Your task to perform on an android device: Go to CNN.com Image 0: 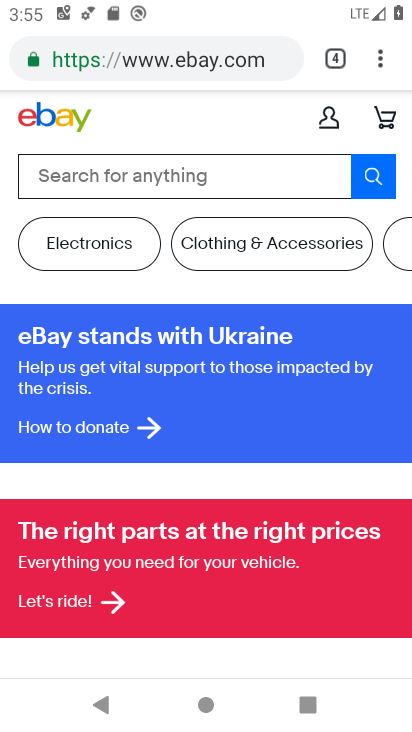
Step 0: press home button
Your task to perform on an android device: Go to CNN.com Image 1: 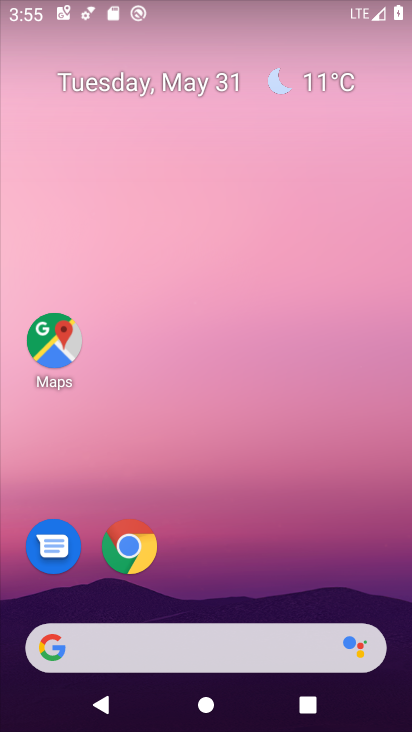
Step 1: click (133, 554)
Your task to perform on an android device: Go to CNN.com Image 2: 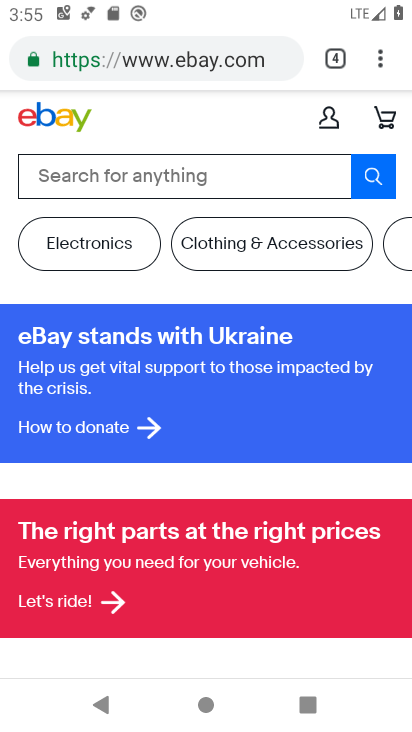
Step 2: click (334, 48)
Your task to perform on an android device: Go to CNN.com Image 3: 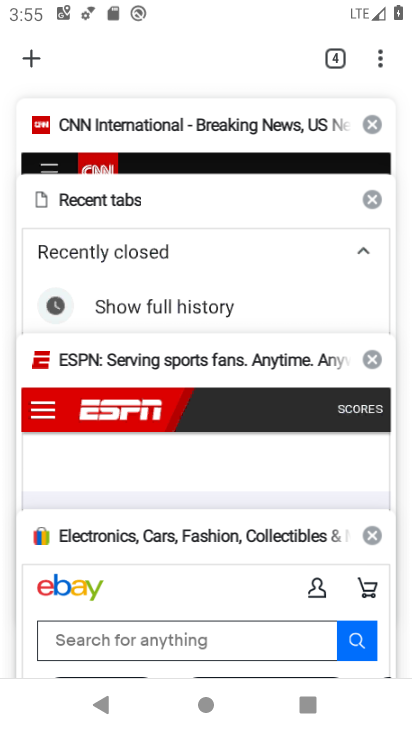
Step 3: click (118, 115)
Your task to perform on an android device: Go to CNN.com Image 4: 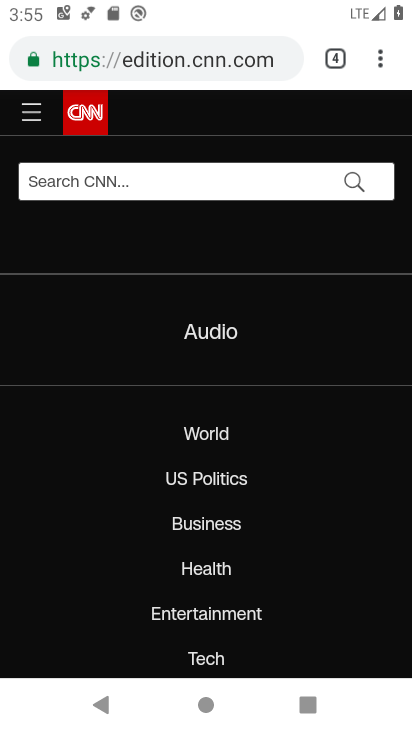
Step 4: task complete